Your task to perform on an android device: move an email to a new category in the gmail app Image 0: 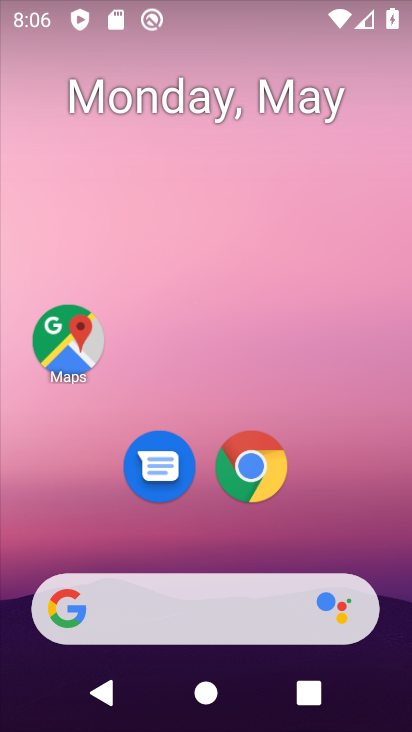
Step 0: drag from (247, 653) to (321, 5)
Your task to perform on an android device: move an email to a new category in the gmail app Image 1: 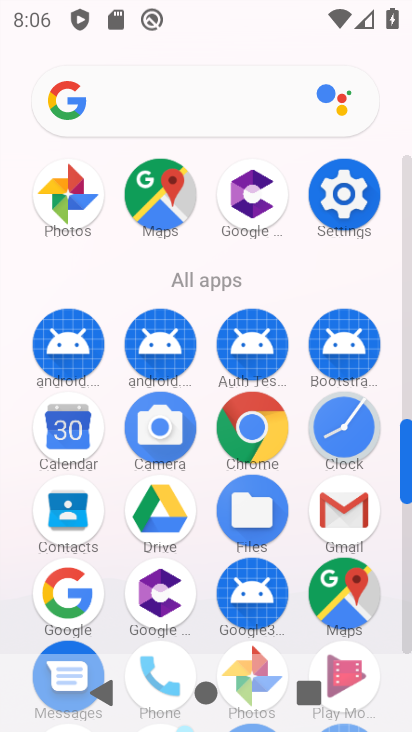
Step 1: click (340, 511)
Your task to perform on an android device: move an email to a new category in the gmail app Image 2: 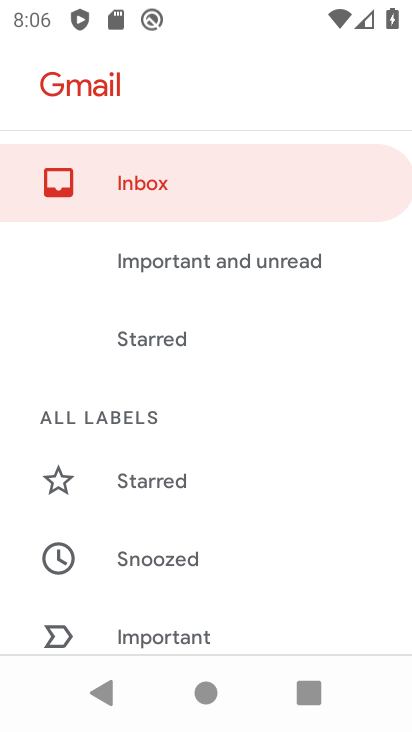
Step 2: drag from (145, 591) to (175, 228)
Your task to perform on an android device: move an email to a new category in the gmail app Image 3: 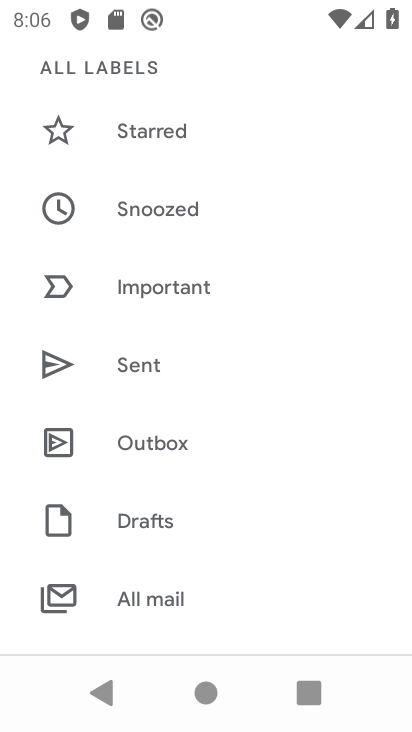
Step 3: drag from (153, 432) to (181, 47)
Your task to perform on an android device: move an email to a new category in the gmail app Image 4: 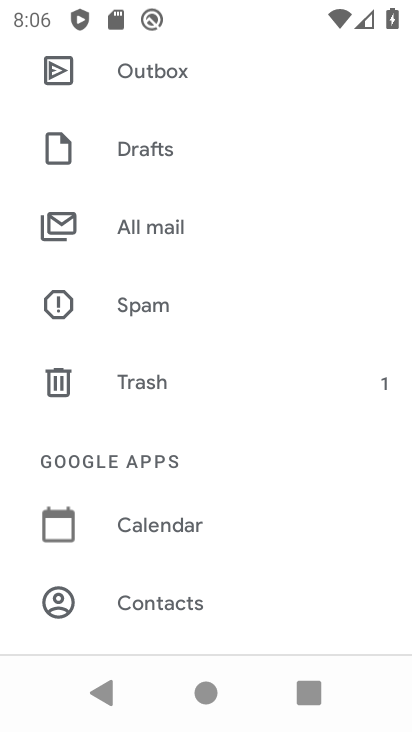
Step 4: drag from (166, 380) to (197, 145)
Your task to perform on an android device: move an email to a new category in the gmail app Image 5: 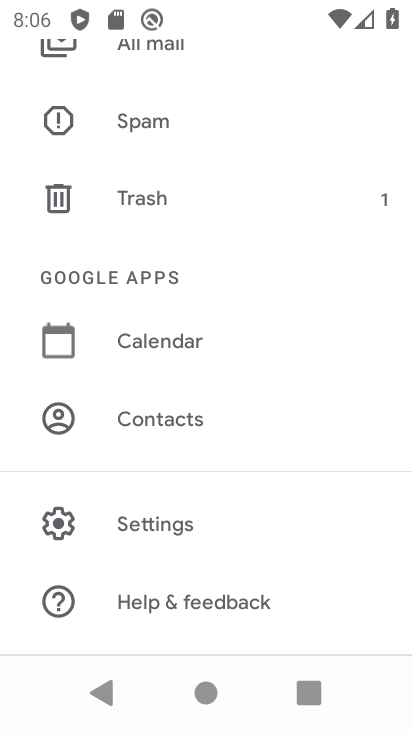
Step 5: click (166, 518)
Your task to perform on an android device: move an email to a new category in the gmail app Image 6: 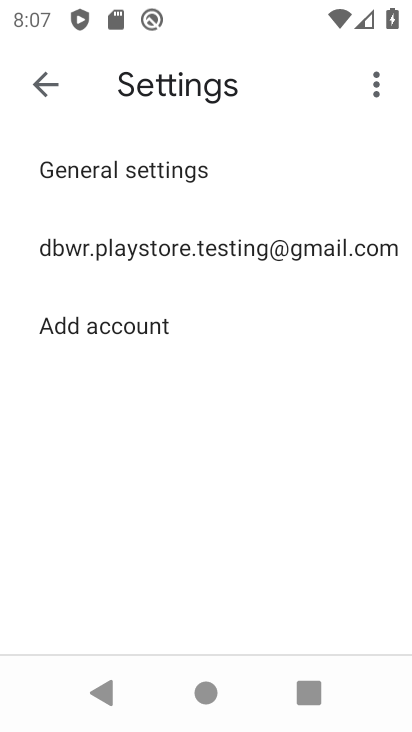
Step 6: click (143, 245)
Your task to perform on an android device: move an email to a new category in the gmail app Image 7: 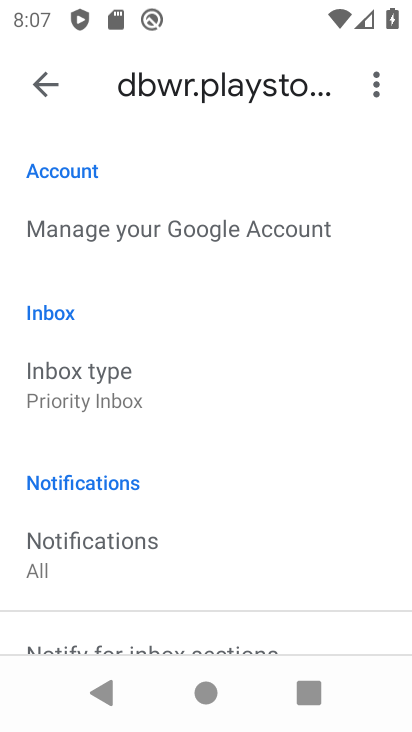
Step 7: drag from (117, 521) to (107, 262)
Your task to perform on an android device: move an email to a new category in the gmail app Image 8: 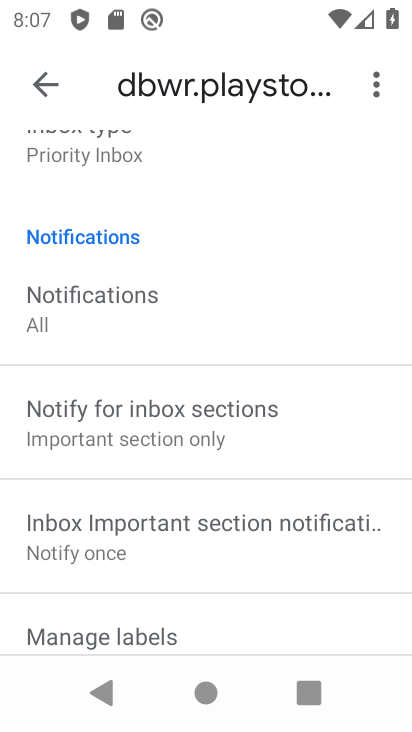
Step 8: click (107, 134)
Your task to perform on an android device: move an email to a new category in the gmail app Image 9: 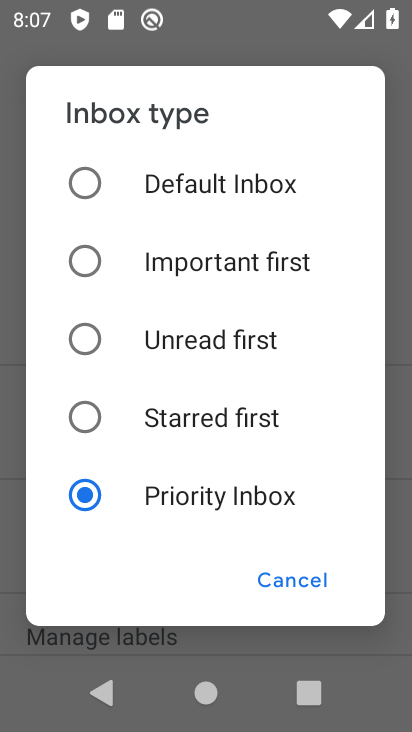
Step 9: click (156, 188)
Your task to perform on an android device: move an email to a new category in the gmail app Image 10: 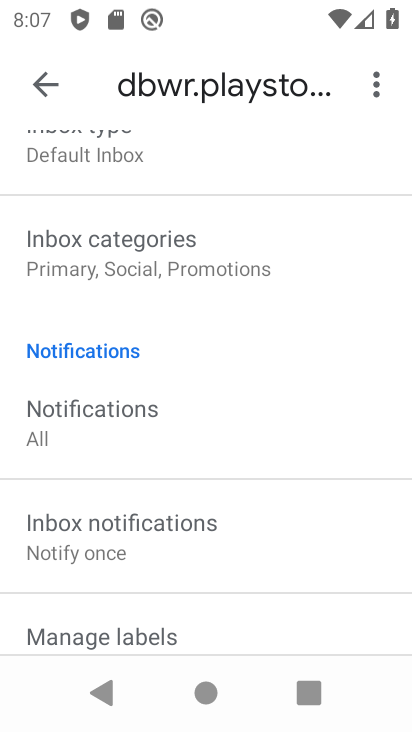
Step 10: click (136, 236)
Your task to perform on an android device: move an email to a new category in the gmail app Image 11: 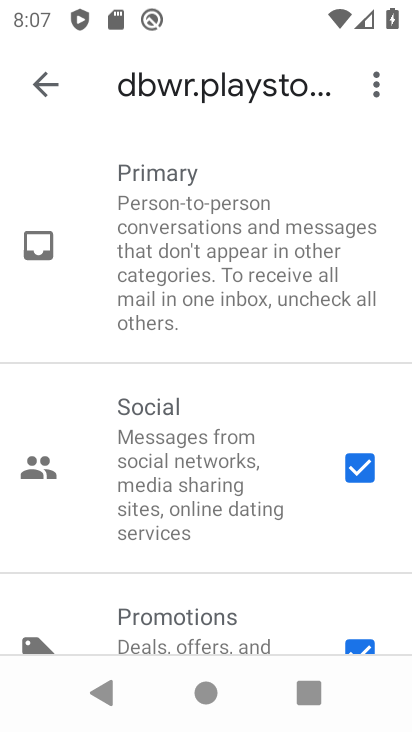
Step 11: click (356, 463)
Your task to perform on an android device: move an email to a new category in the gmail app Image 12: 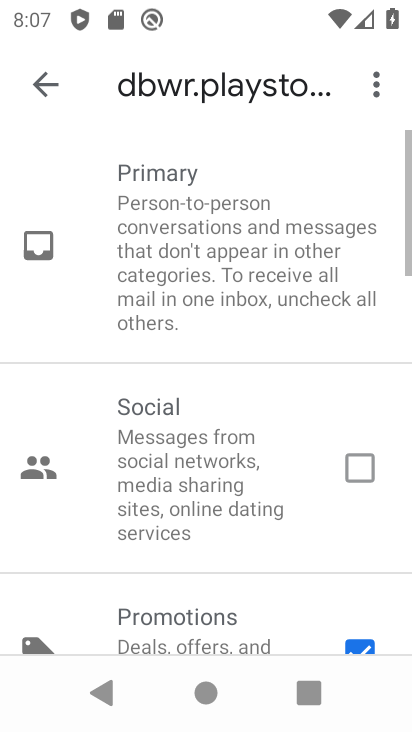
Step 12: task complete